Your task to perform on an android device: Add macbook air to the cart on newegg.com Image 0: 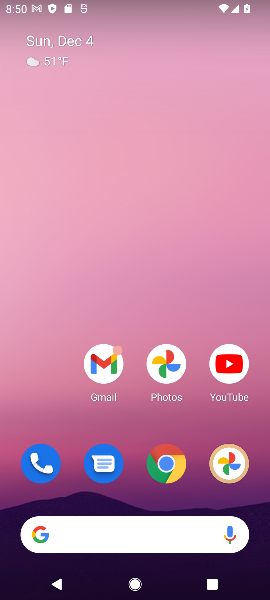
Step 0: click (195, 541)
Your task to perform on an android device: Add macbook air to the cart on newegg.com Image 1: 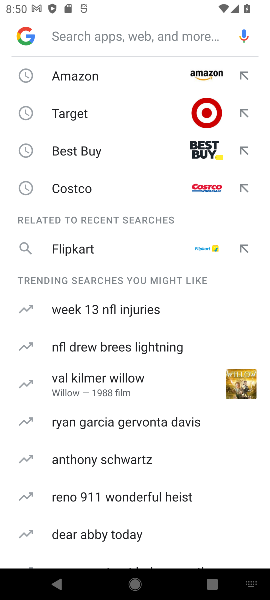
Step 1: type "newegg"
Your task to perform on an android device: Add macbook air to the cart on newegg.com Image 2: 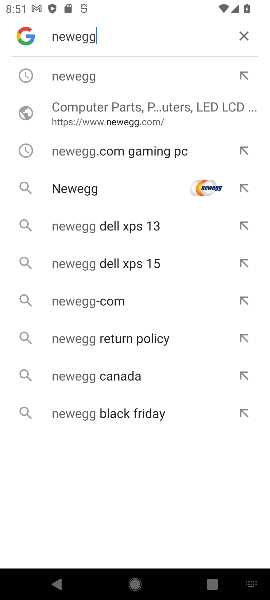
Step 2: click (97, 111)
Your task to perform on an android device: Add macbook air to the cart on newegg.com Image 3: 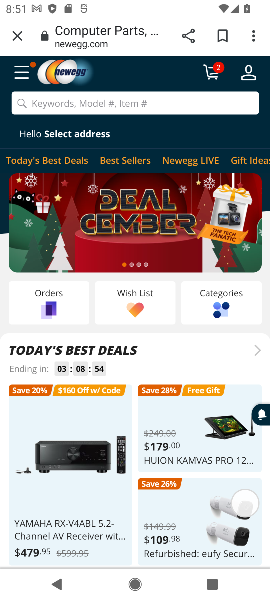
Step 3: click (97, 109)
Your task to perform on an android device: Add macbook air to the cart on newegg.com Image 4: 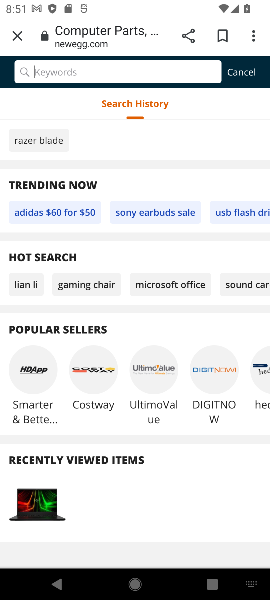
Step 4: type "macbook air"
Your task to perform on an android device: Add macbook air to the cart on newegg.com Image 5: 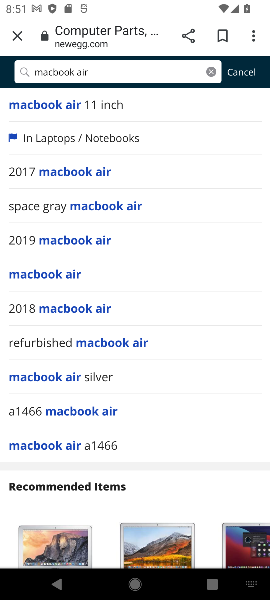
Step 5: click (94, 106)
Your task to perform on an android device: Add macbook air to the cart on newegg.com Image 6: 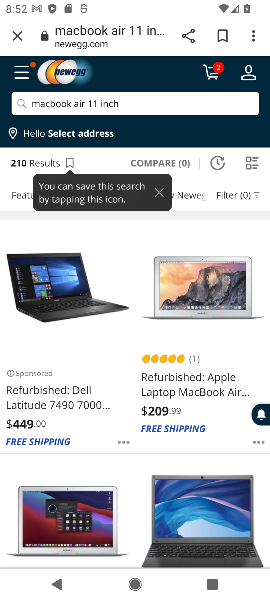
Step 6: task complete